Your task to perform on an android device: Go to Google maps Image 0: 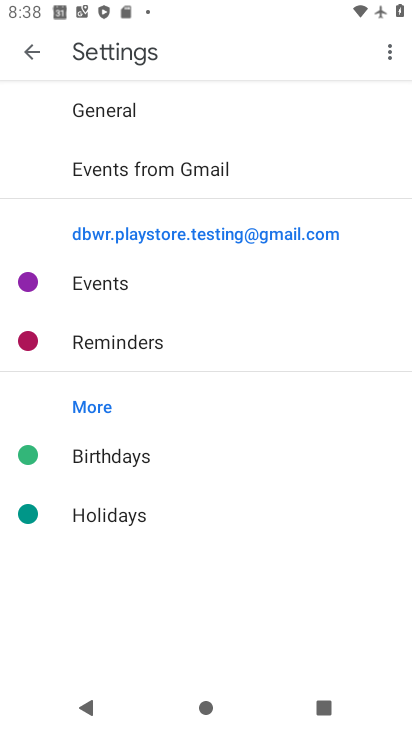
Step 0: press home button
Your task to perform on an android device: Go to Google maps Image 1: 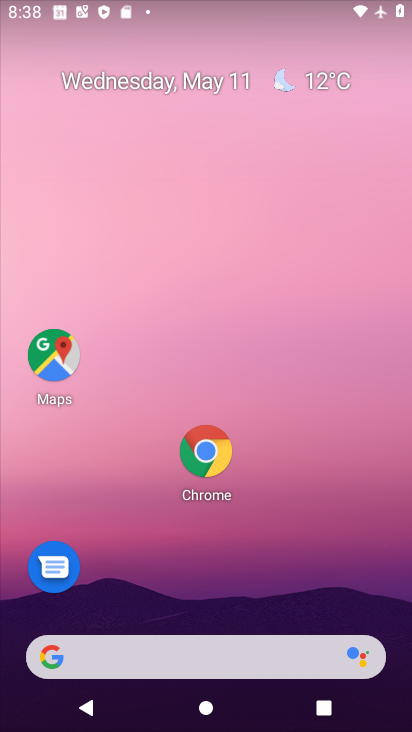
Step 1: click (51, 356)
Your task to perform on an android device: Go to Google maps Image 2: 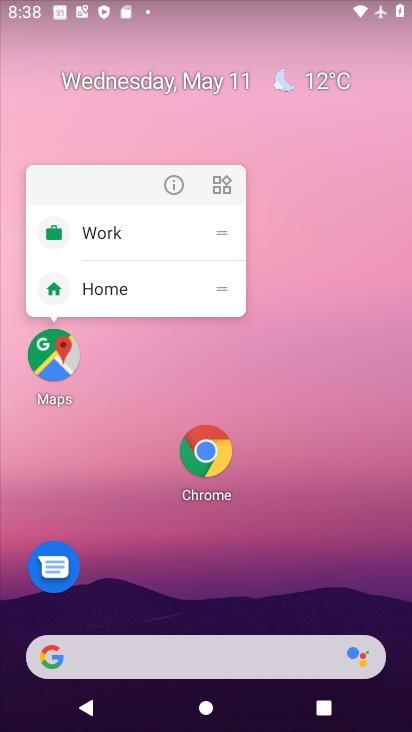
Step 2: click (62, 361)
Your task to perform on an android device: Go to Google maps Image 3: 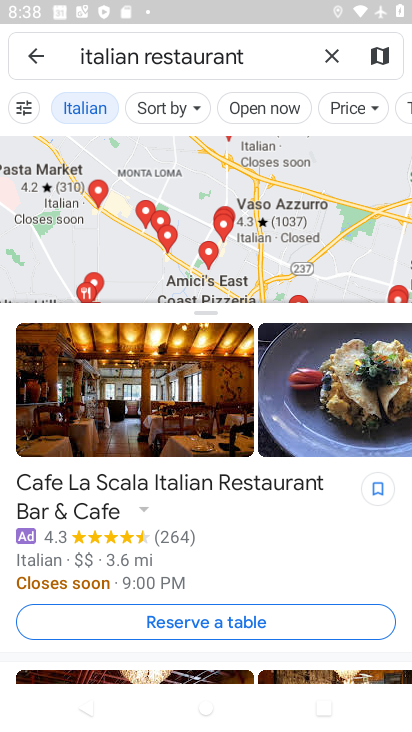
Step 3: click (43, 58)
Your task to perform on an android device: Go to Google maps Image 4: 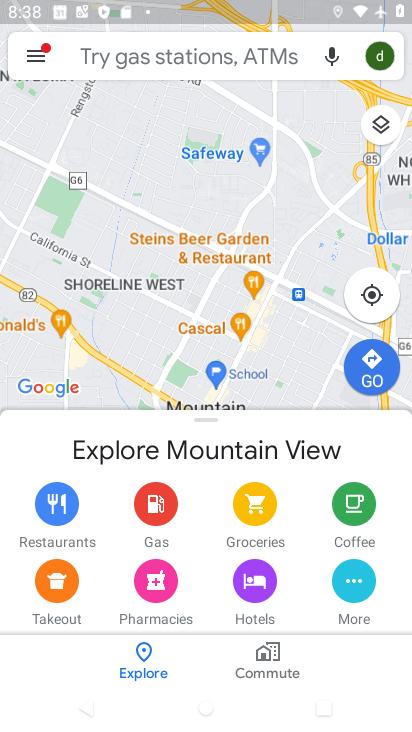
Step 4: task complete